Your task to perform on an android device: turn off airplane mode Image 0: 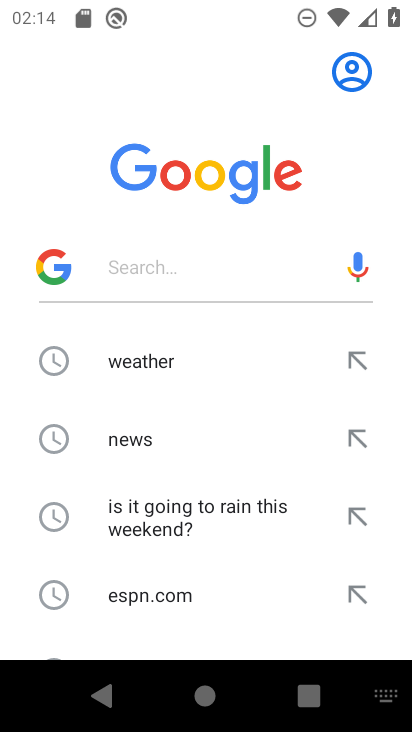
Step 0: press home button
Your task to perform on an android device: turn off airplane mode Image 1: 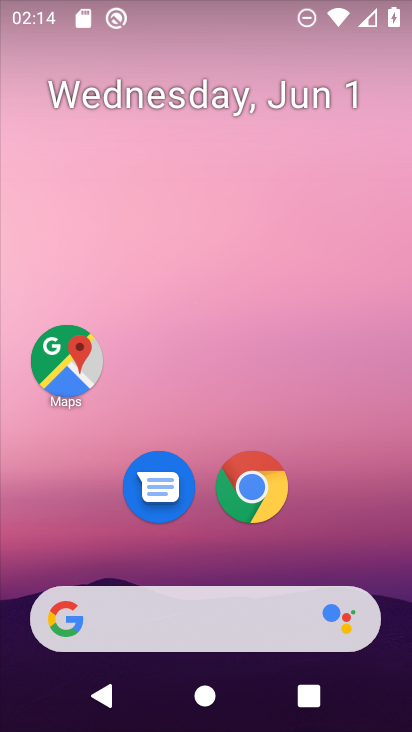
Step 1: click (292, 528)
Your task to perform on an android device: turn off airplane mode Image 2: 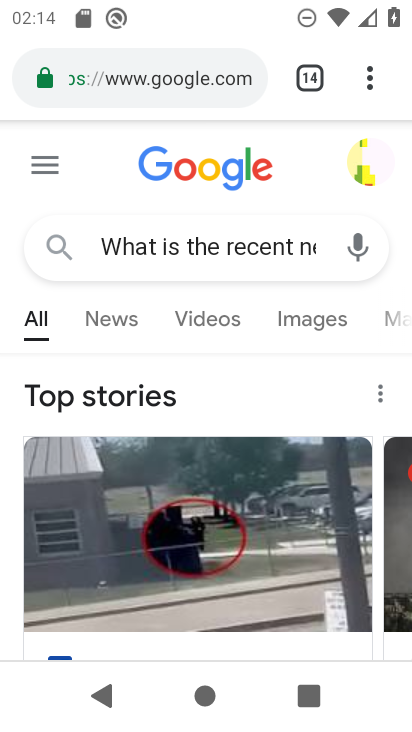
Step 2: press home button
Your task to perform on an android device: turn off airplane mode Image 3: 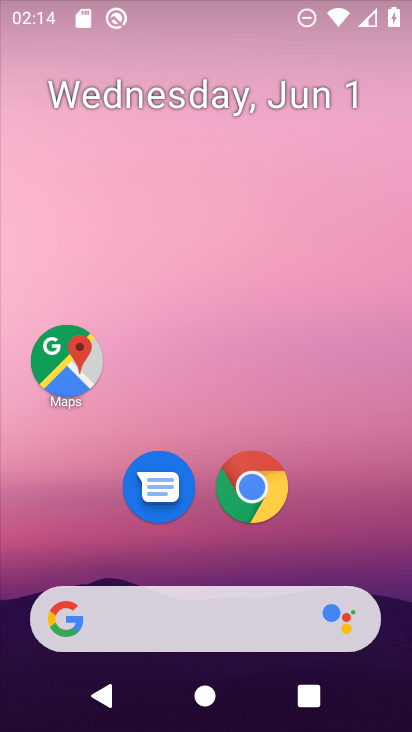
Step 3: drag from (245, 560) to (207, 198)
Your task to perform on an android device: turn off airplane mode Image 4: 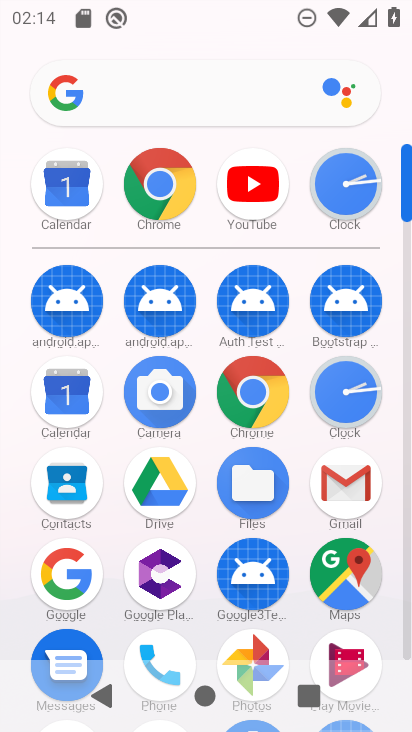
Step 4: drag from (280, 523) to (296, 293)
Your task to perform on an android device: turn off airplane mode Image 5: 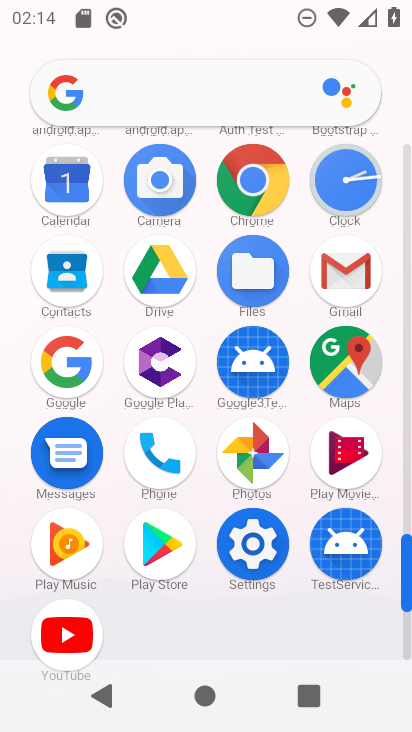
Step 5: click (250, 553)
Your task to perform on an android device: turn off airplane mode Image 6: 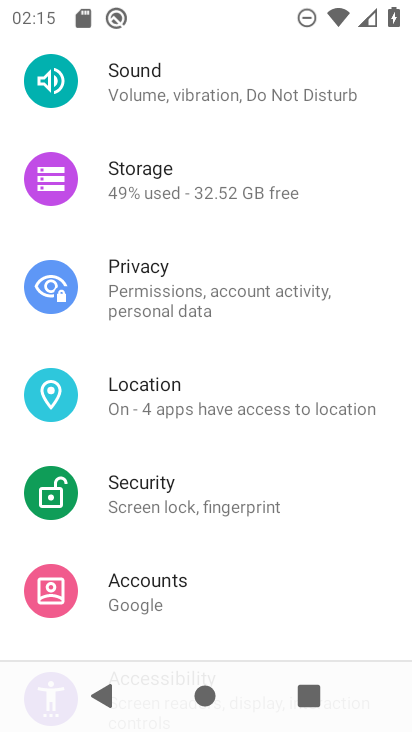
Step 6: drag from (153, 156) to (141, 581)
Your task to perform on an android device: turn off airplane mode Image 7: 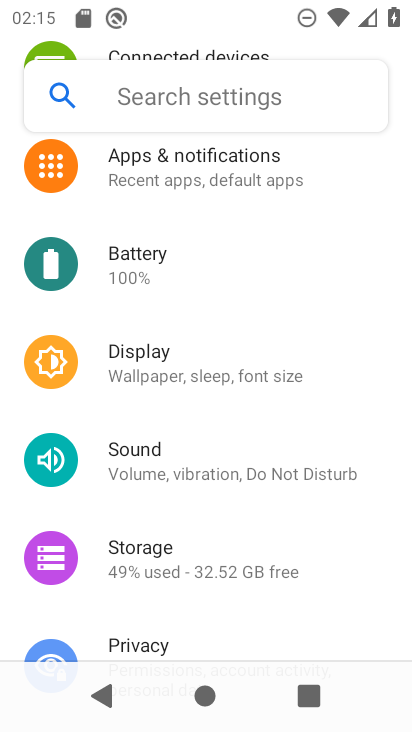
Step 7: drag from (198, 189) to (215, 603)
Your task to perform on an android device: turn off airplane mode Image 8: 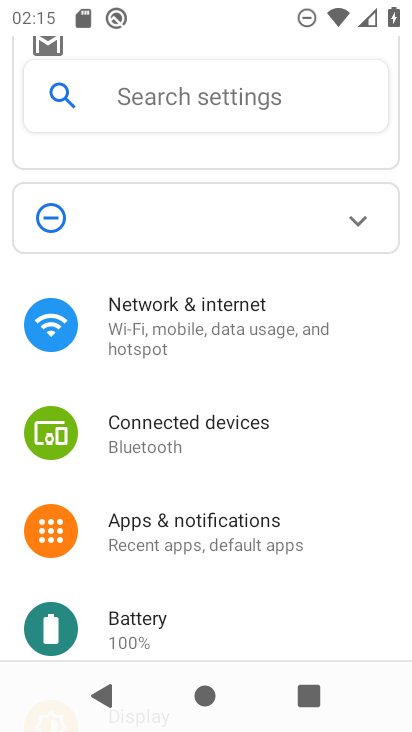
Step 8: click (191, 318)
Your task to perform on an android device: turn off airplane mode Image 9: 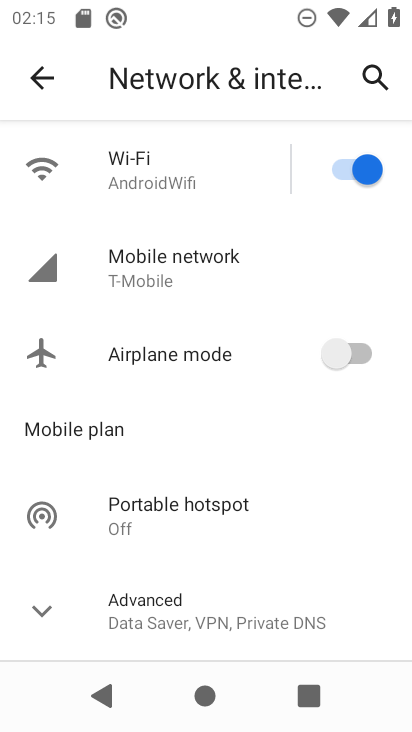
Step 9: task complete